Your task to perform on an android device: What's the weather? Image 0: 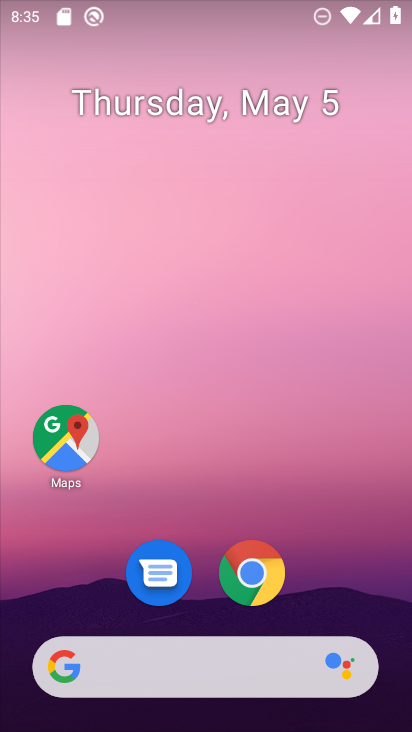
Step 0: click (194, 659)
Your task to perform on an android device: What's the weather? Image 1: 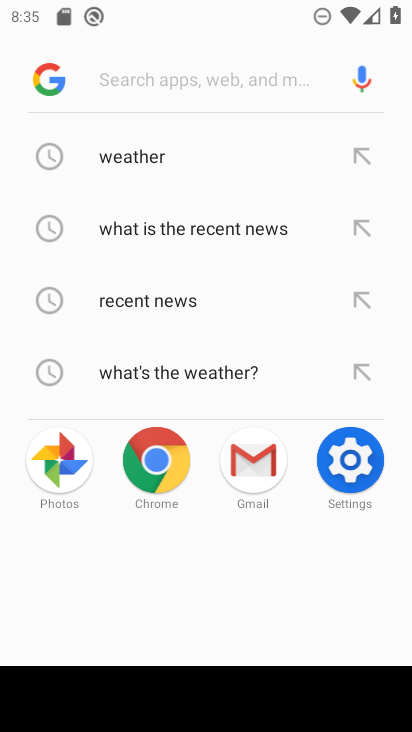
Step 1: click (168, 150)
Your task to perform on an android device: What's the weather? Image 2: 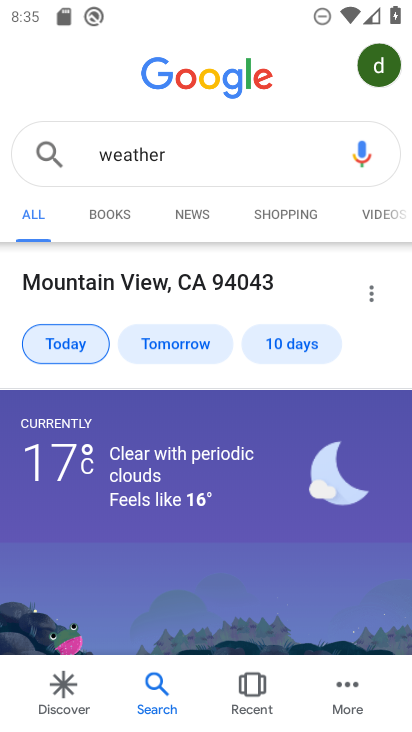
Step 2: task complete